Your task to perform on an android device: Open sound settings Image 0: 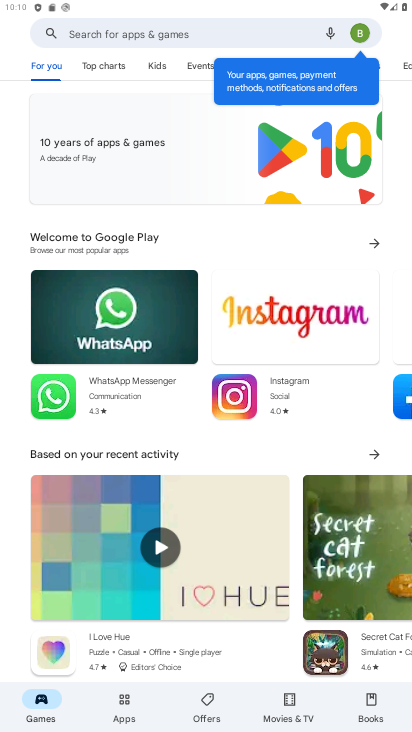
Step 0: press home button
Your task to perform on an android device: Open sound settings Image 1: 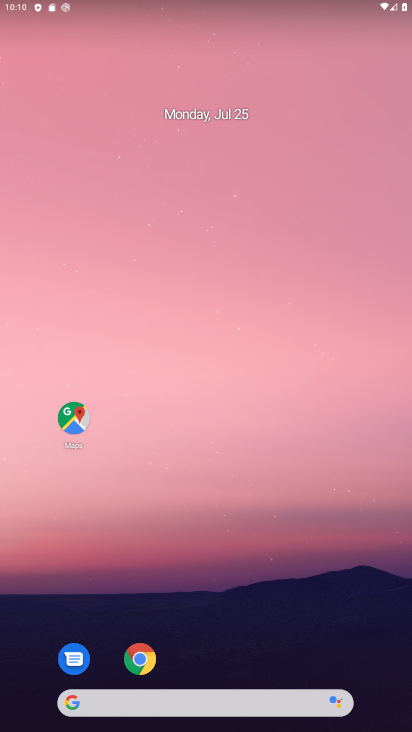
Step 1: drag from (199, 621) to (207, 16)
Your task to perform on an android device: Open sound settings Image 2: 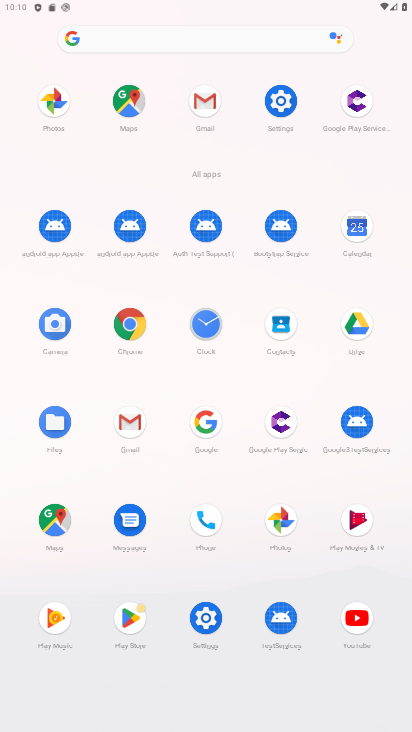
Step 2: click (201, 622)
Your task to perform on an android device: Open sound settings Image 3: 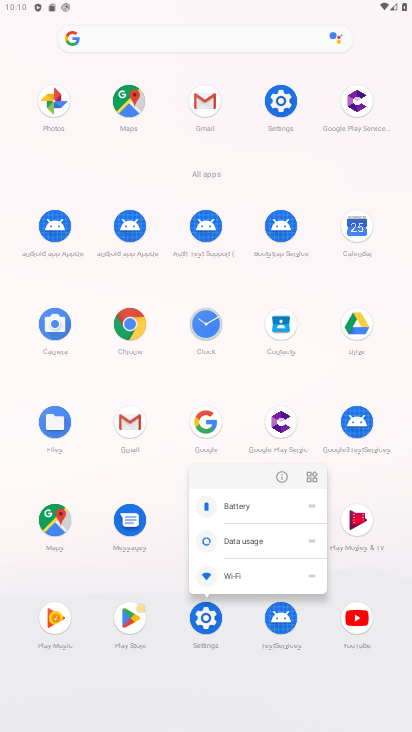
Step 3: click (204, 628)
Your task to perform on an android device: Open sound settings Image 4: 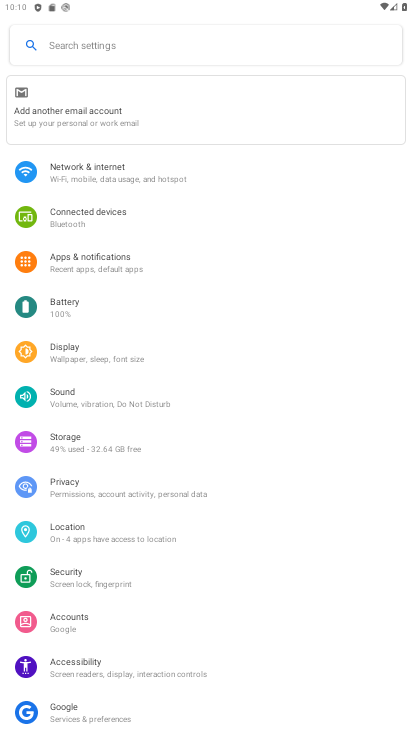
Step 4: click (121, 401)
Your task to perform on an android device: Open sound settings Image 5: 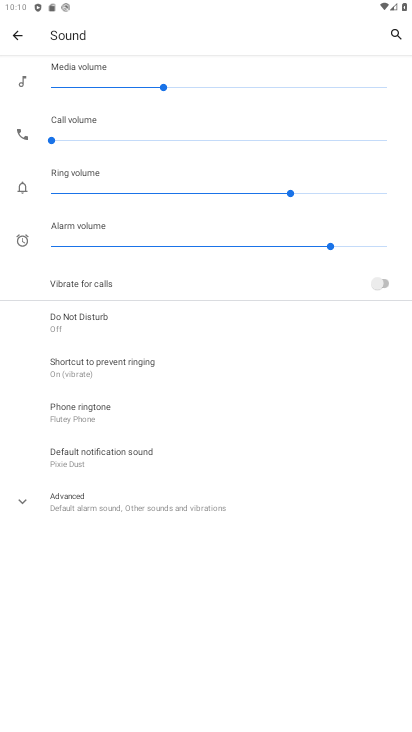
Step 5: click (89, 312)
Your task to perform on an android device: Open sound settings Image 6: 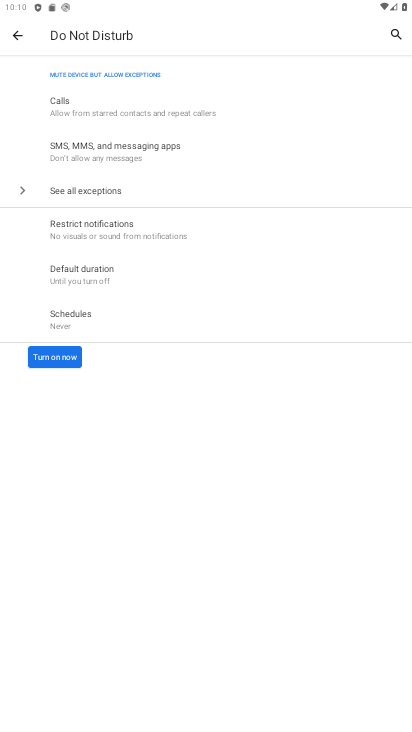
Step 6: task complete